Your task to perform on an android device: See recent photos Image 0: 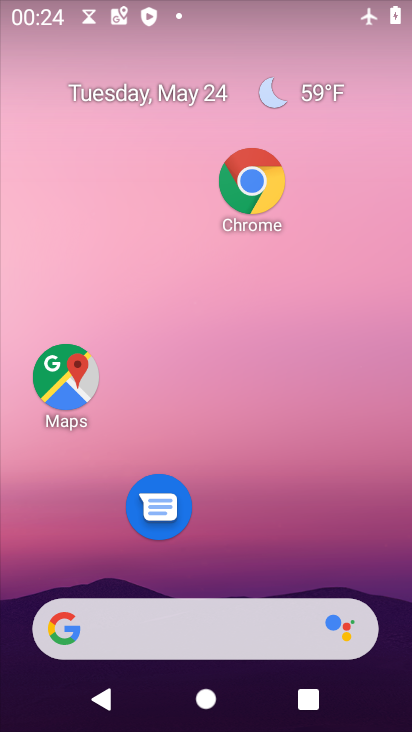
Step 0: drag from (291, 518) to (328, 255)
Your task to perform on an android device: See recent photos Image 1: 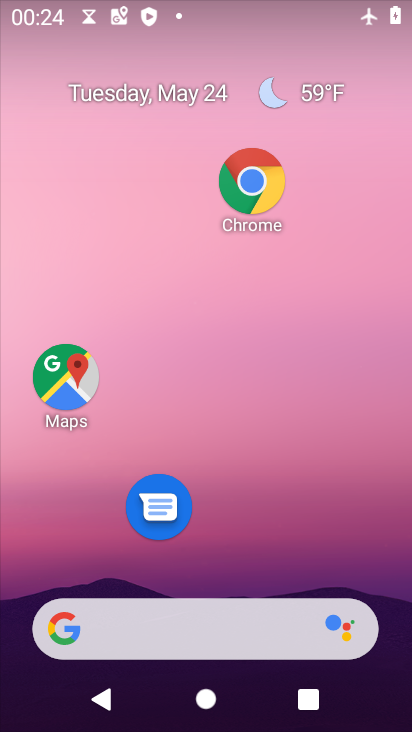
Step 1: drag from (252, 576) to (299, 326)
Your task to perform on an android device: See recent photos Image 2: 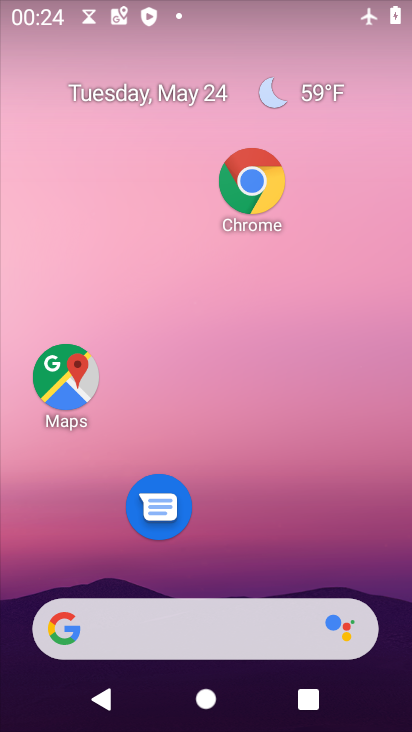
Step 2: drag from (261, 611) to (293, 340)
Your task to perform on an android device: See recent photos Image 3: 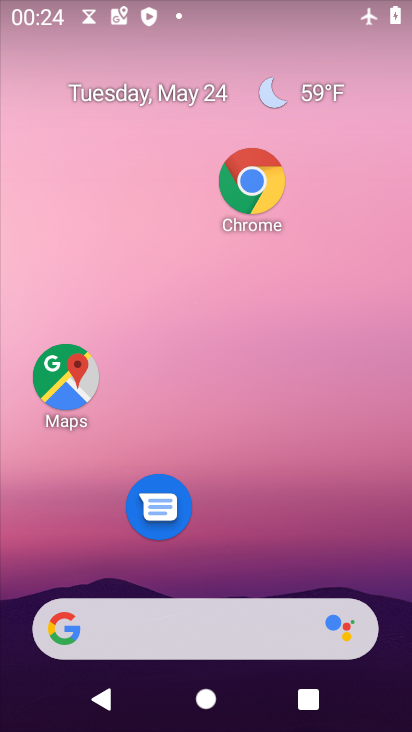
Step 3: drag from (300, 523) to (334, 267)
Your task to perform on an android device: See recent photos Image 4: 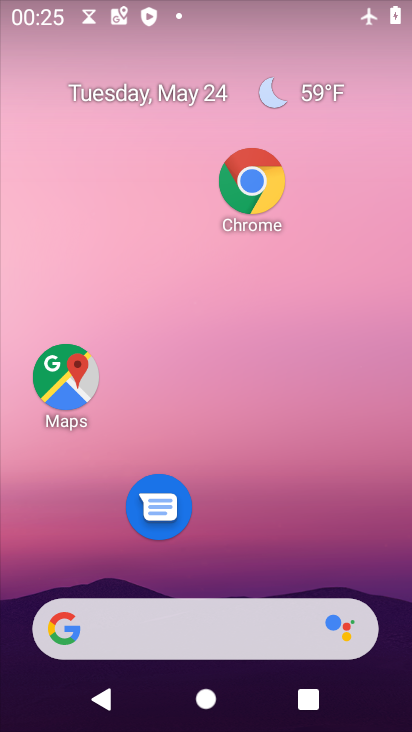
Step 4: drag from (245, 502) to (289, 340)
Your task to perform on an android device: See recent photos Image 5: 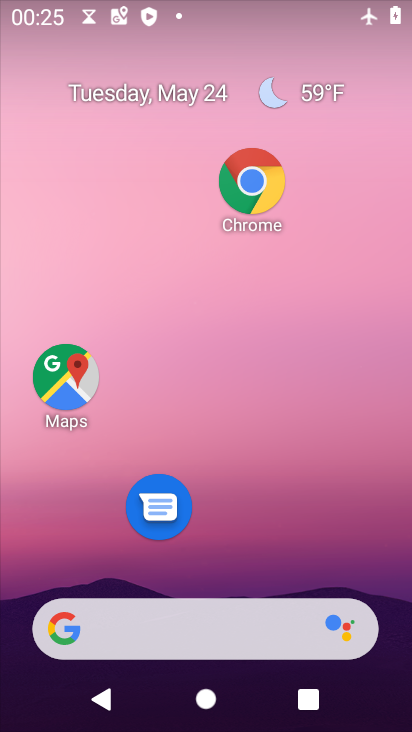
Step 5: drag from (253, 621) to (339, 191)
Your task to perform on an android device: See recent photos Image 6: 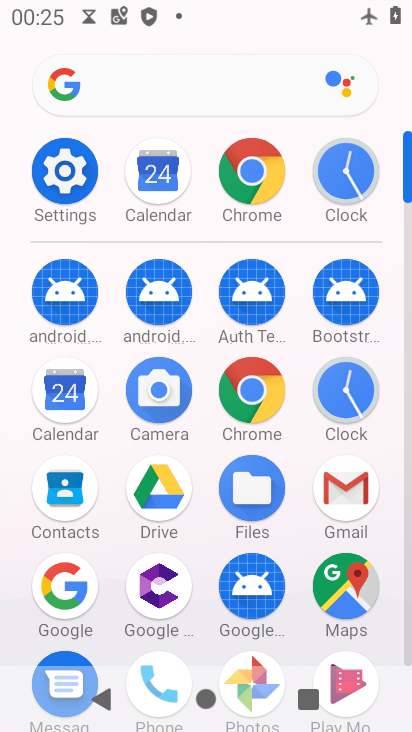
Step 6: drag from (189, 619) to (289, 270)
Your task to perform on an android device: See recent photos Image 7: 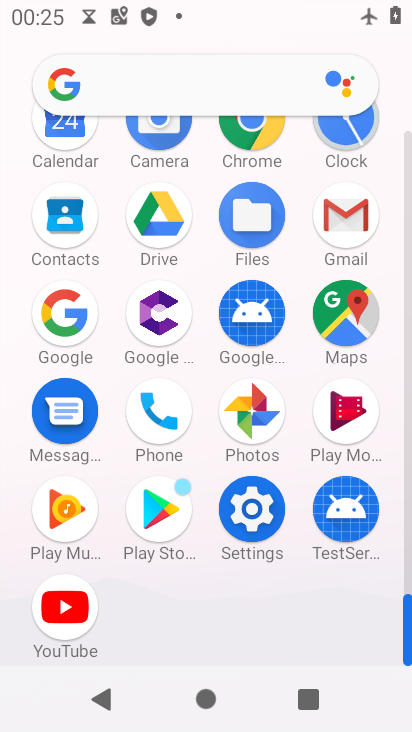
Step 7: click (248, 408)
Your task to perform on an android device: See recent photos Image 8: 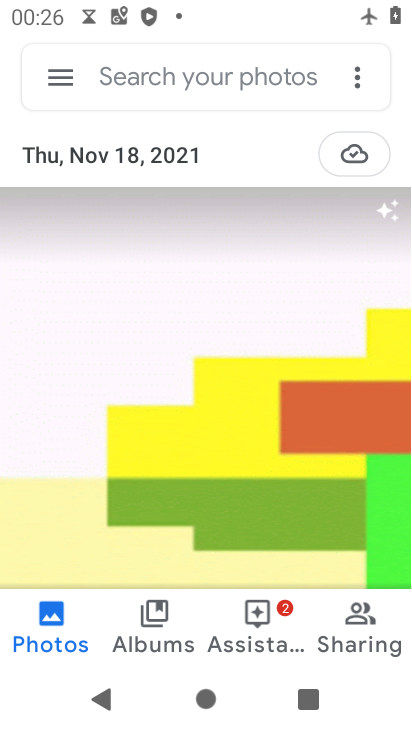
Step 8: task complete